Your task to perform on an android device: change the clock display to show seconds Image 0: 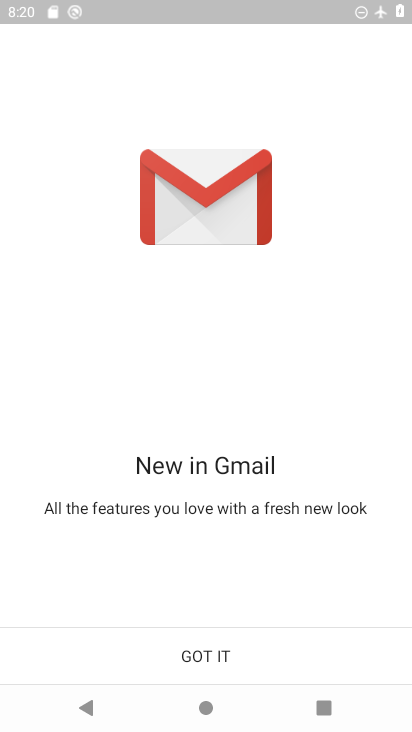
Step 0: press home button
Your task to perform on an android device: change the clock display to show seconds Image 1: 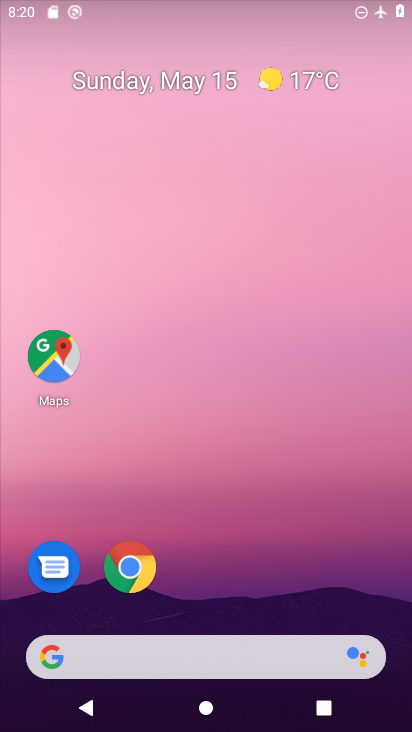
Step 1: drag from (120, 588) to (173, 22)
Your task to perform on an android device: change the clock display to show seconds Image 2: 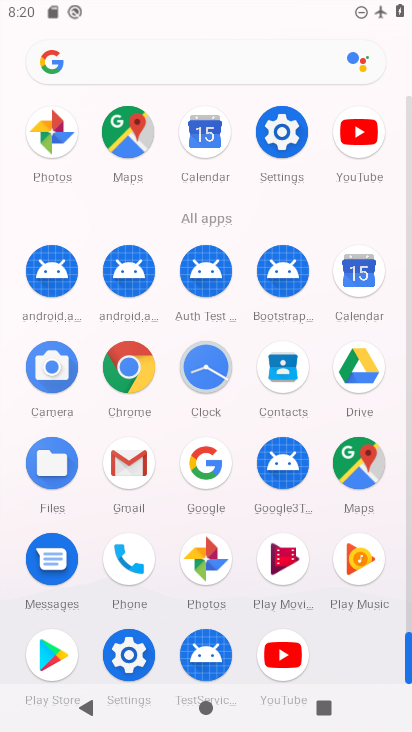
Step 2: click (275, 139)
Your task to perform on an android device: change the clock display to show seconds Image 3: 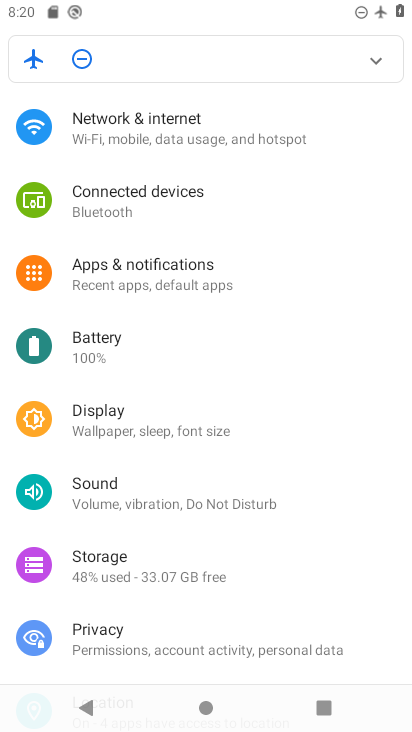
Step 3: press back button
Your task to perform on an android device: change the clock display to show seconds Image 4: 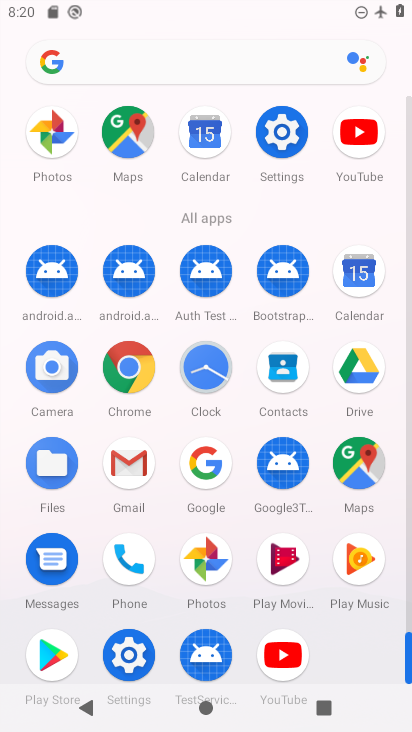
Step 4: drag from (93, 663) to (107, 485)
Your task to perform on an android device: change the clock display to show seconds Image 5: 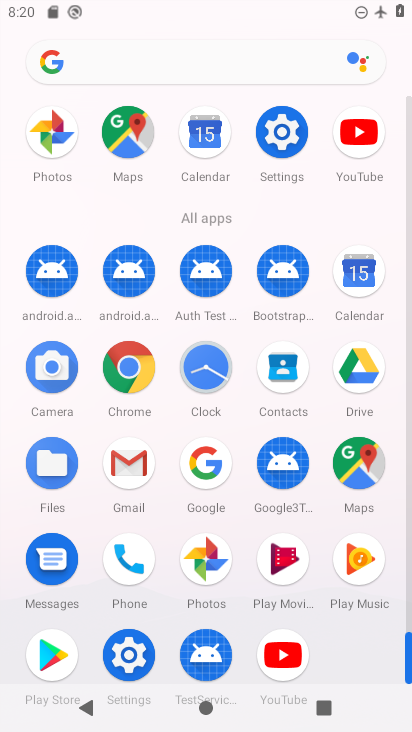
Step 5: click (193, 367)
Your task to perform on an android device: change the clock display to show seconds Image 6: 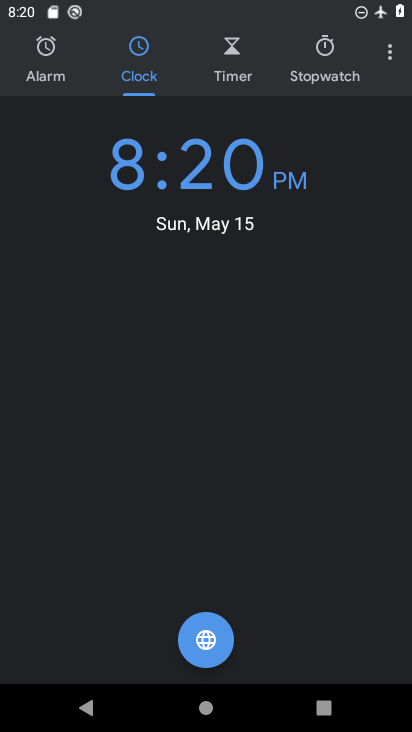
Step 6: click (388, 61)
Your task to perform on an android device: change the clock display to show seconds Image 7: 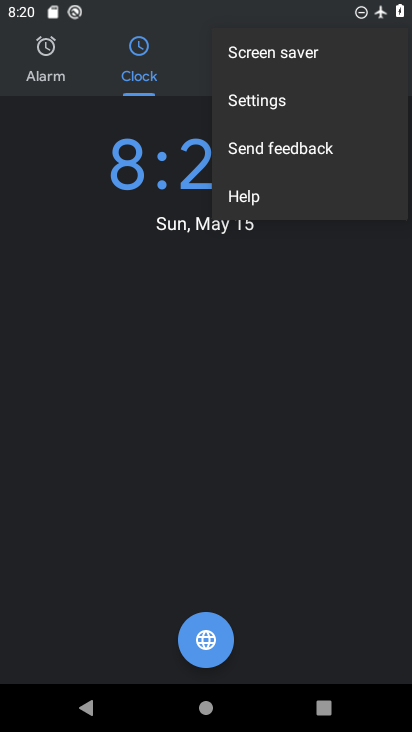
Step 7: click (268, 104)
Your task to perform on an android device: change the clock display to show seconds Image 8: 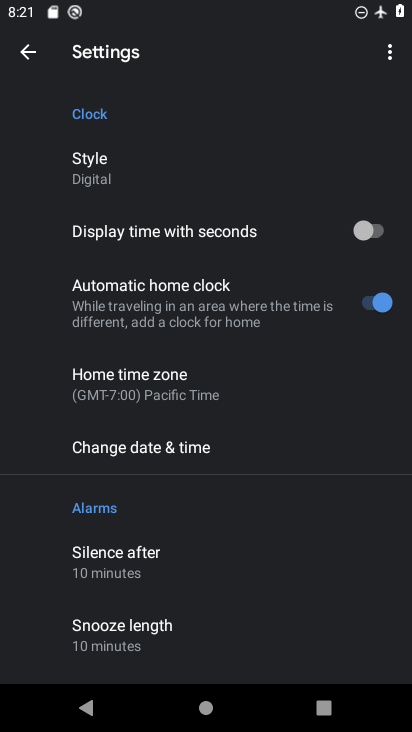
Step 8: click (377, 240)
Your task to perform on an android device: change the clock display to show seconds Image 9: 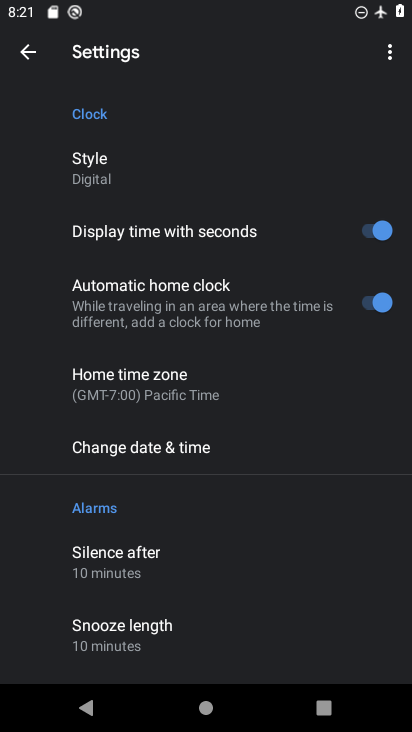
Step 9: task complete